Your task to perform on an android device: turn on wifi Image 0: 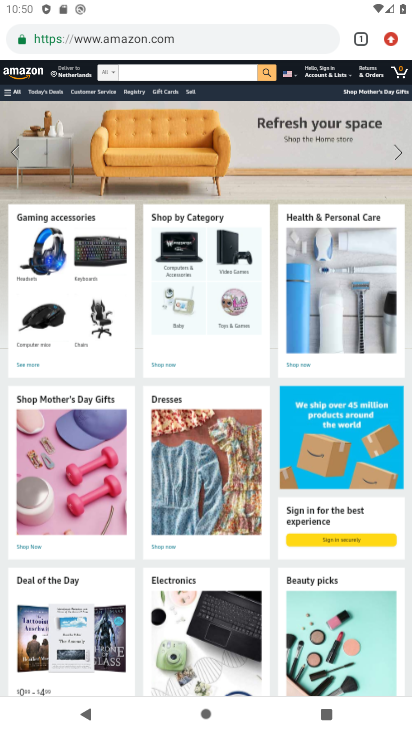
Step 0: press back button
Your task to perform on an android device: turn on wifi Image 1: 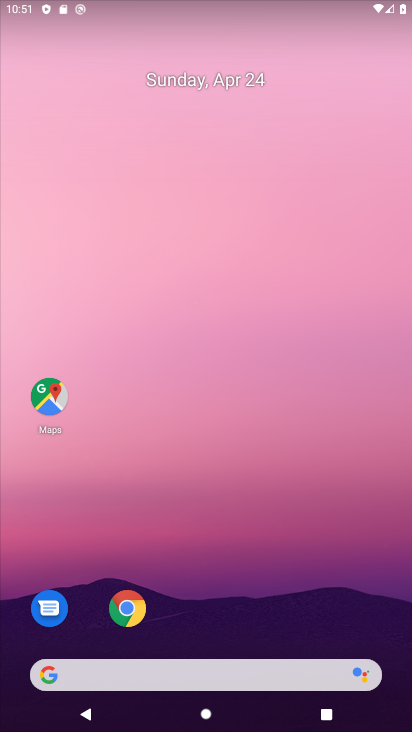
Step 1: drag from (267, 518) to (183, 30)
Your task to perform on an android device: turn on wifi Image 2: 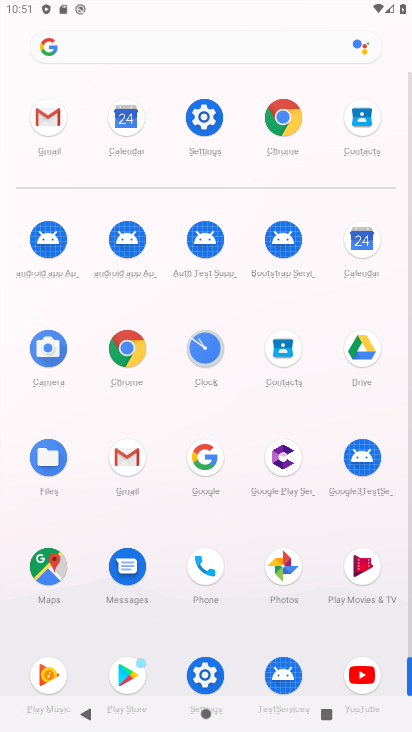
Step 2: drag from (6, 471) to (6, 220)
Your task to perform on an android device: turn on wifi Image 3: 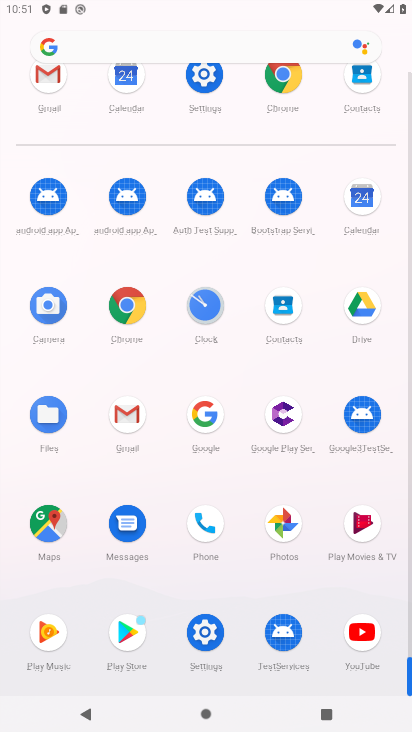
Step 3: click (205, 629)
Your task to perform on an android device: turn on wifi Image 4: 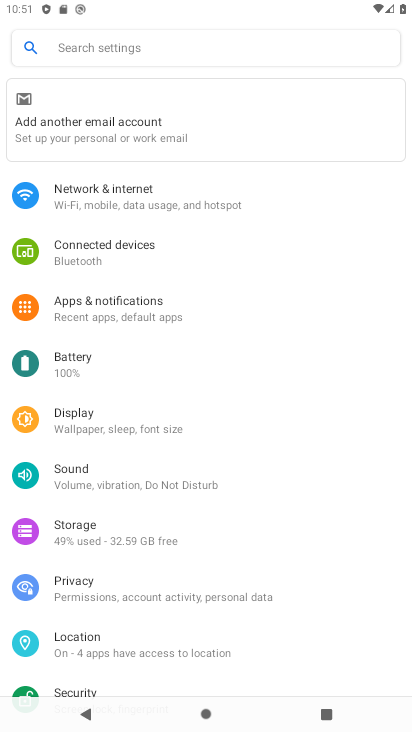
Step 4: click (168, 210)
Your task to perform on an android device: turn on wifi Image 5: 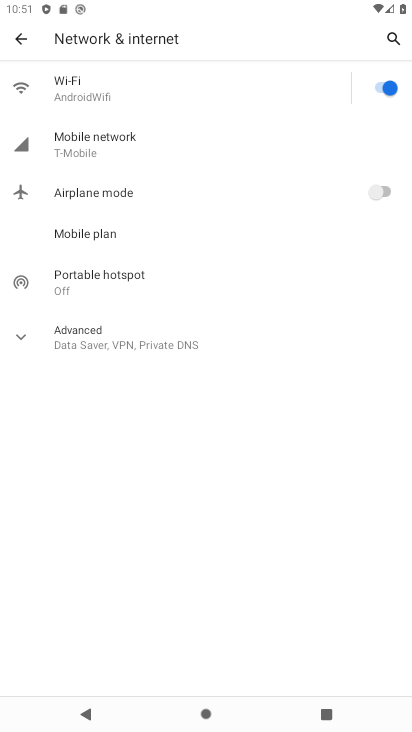
Step 5: click (30, 333)
Your task to perform on an android device: turn on wifi Image 6: 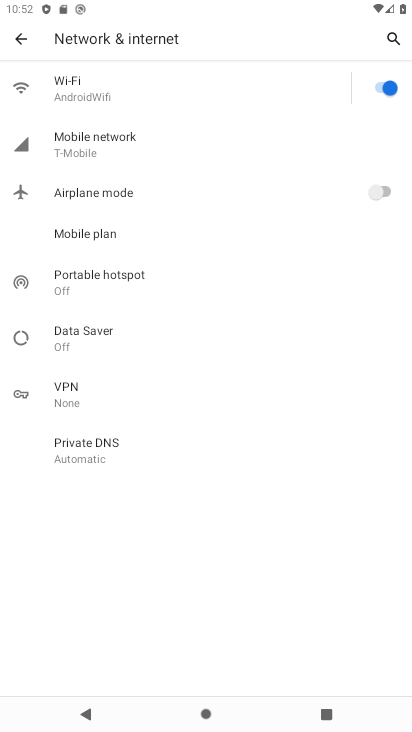
Step 6: task complete